Your task to perform on an android device: check the backup settings in the google photos Image 0: 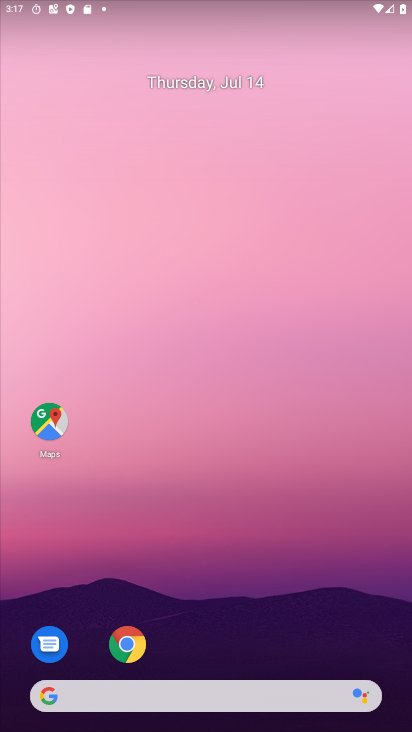
Step 0: drag from (22, 686) to (213, 214)
Your task to perform on an android device: check the backup settings in the google photos Image 1: 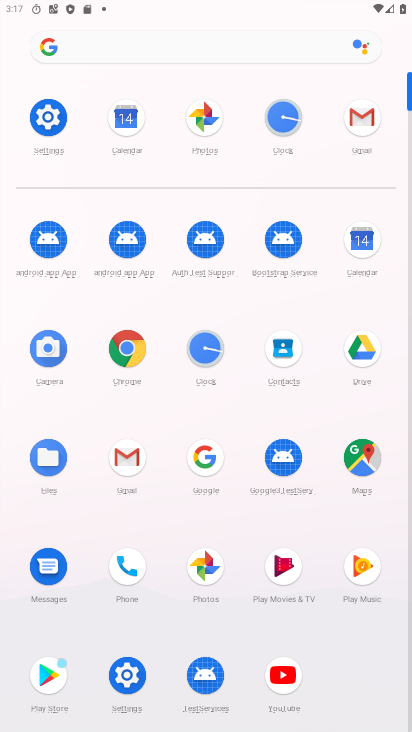
Step 1: click (212, 585)
Your task to perform on an android device: check the backup settings in the google photos Image 2: 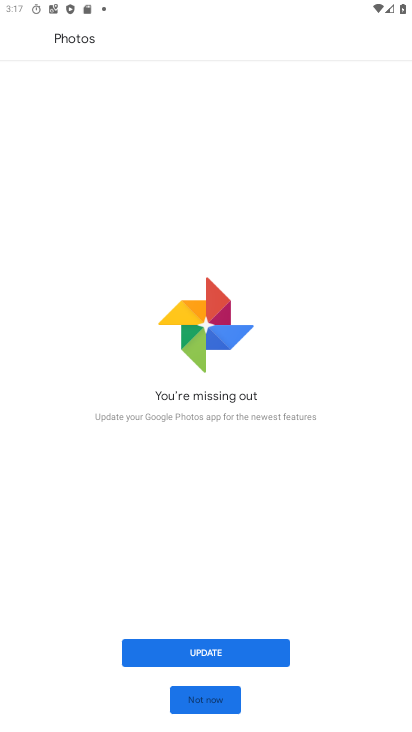
Step 2: click (185, 702)
Your task to perform on an android device: check the backup settings in the google photos Image 3: 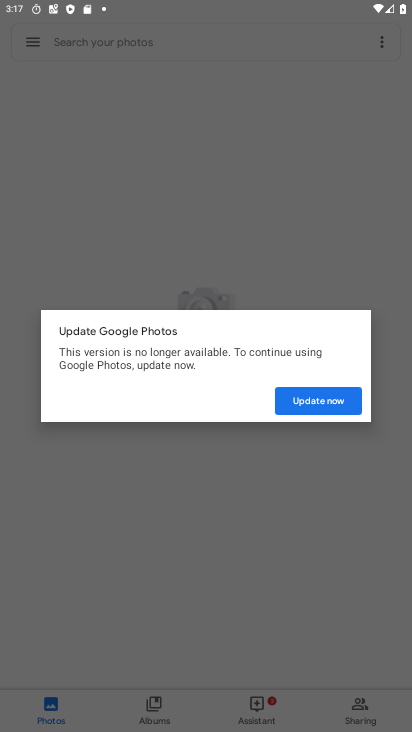
Step 3: click (320, 398)
Your task to perform on an android device: check the backup settings in the google photos Image 4: 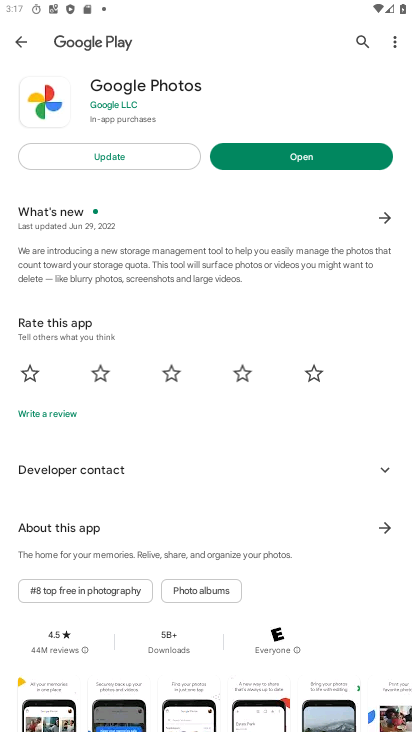
Step 4: click (257, 158)
Your task to perform on an android device: check the backup settings in the google photos Image 5: 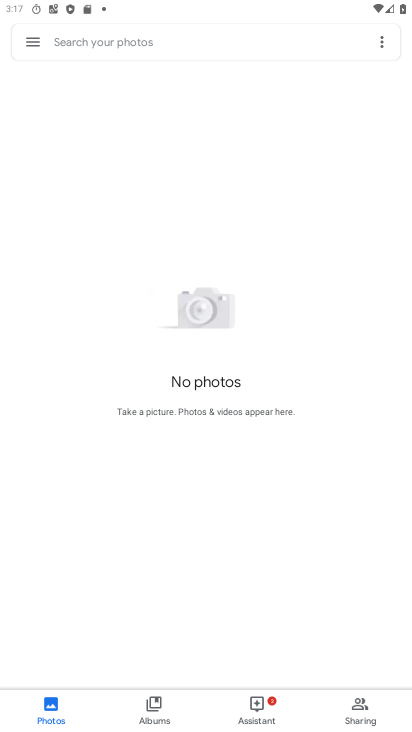
Step 5: click (37, 48)
Your task to perform on an android device: check the backup settings in the google photos Image 6: 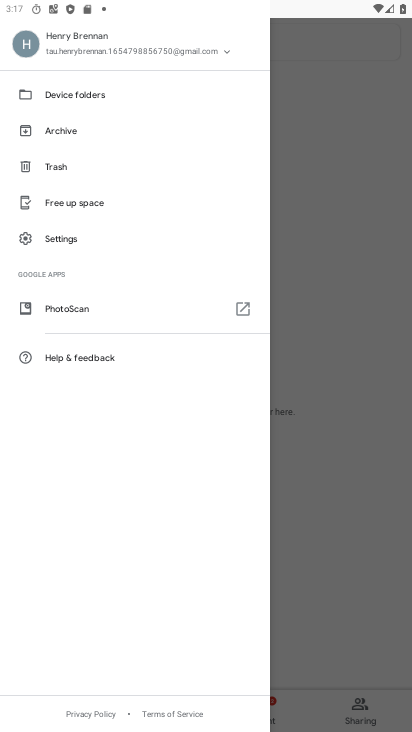
Step 6: click (96, 229)
Your task to perform on an android device: check the backup settings in the google photos Image 7: 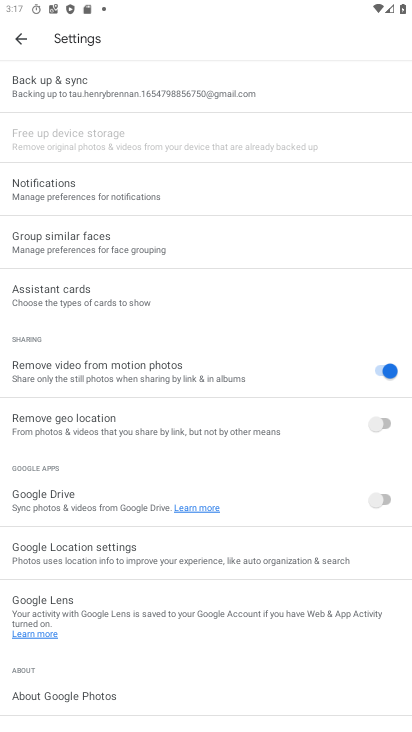
Step 7: click (99, 87)
Your task to perform on an android device: check the backup settings in the google photos Image 8: 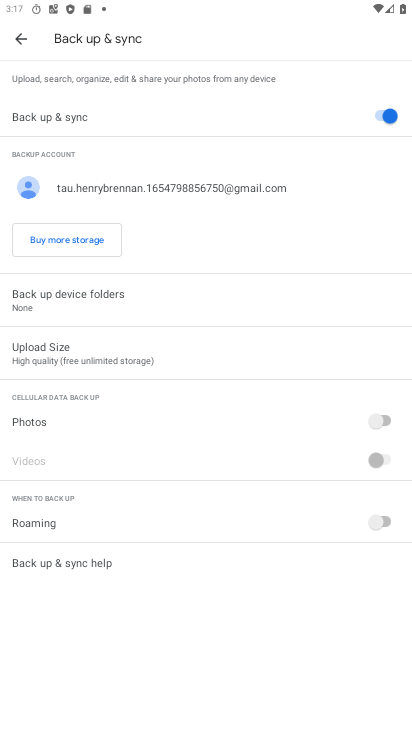
Step 8: task complete